Your task to perform on an android device: Go to sound settings Image 0: 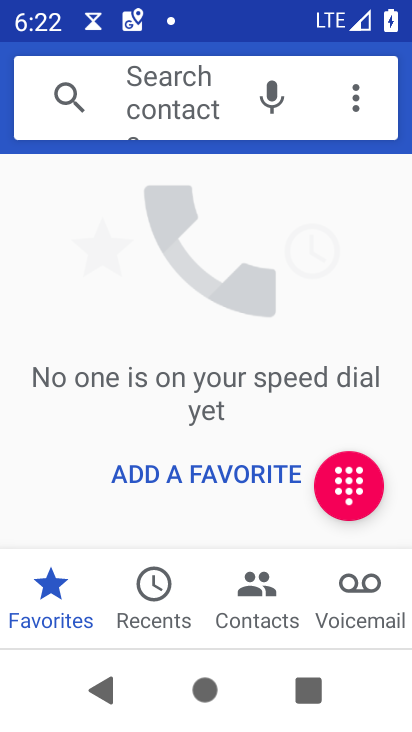
Step 0: press home button
Your task to perform on an android device: Go to sound settings Image 1: 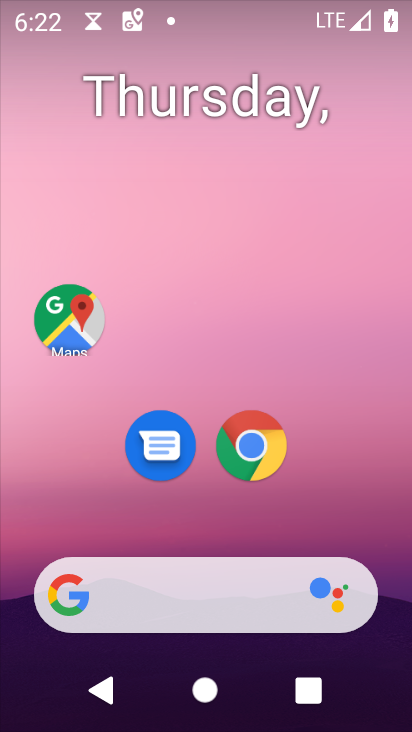
Step 1: drag from (339, 514) to (342, 61)
Your task to perform on an android device: Go to sound settings Image 2: 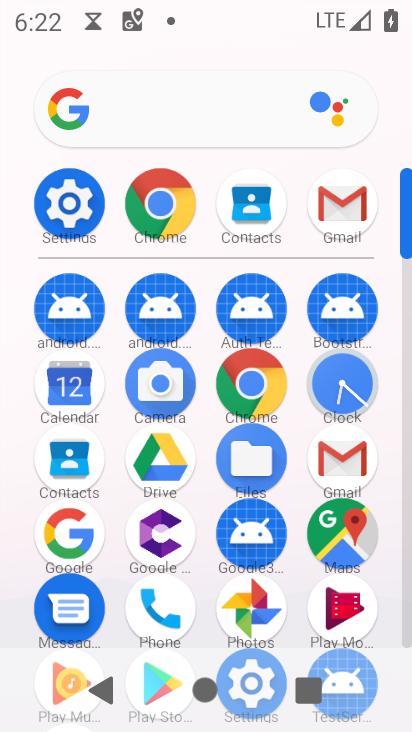
Step 2: click (69, 208)
Your task to perform on an android device: Go to sound settings Image 3: 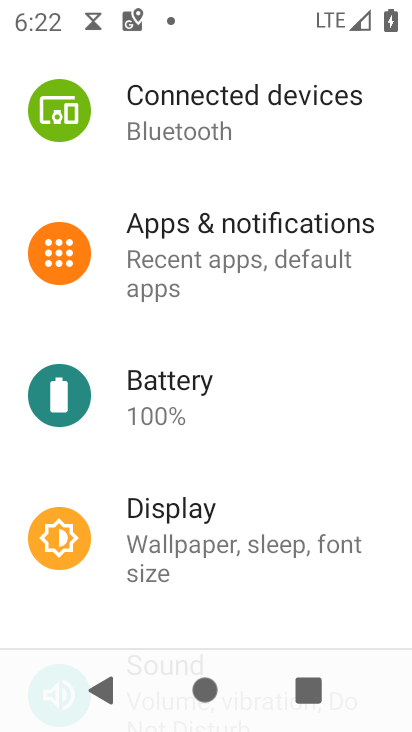
Step 3: drag from (309, 489) to (298, 226)
Your task to perform on an android device: Go to sound settings Image 4: 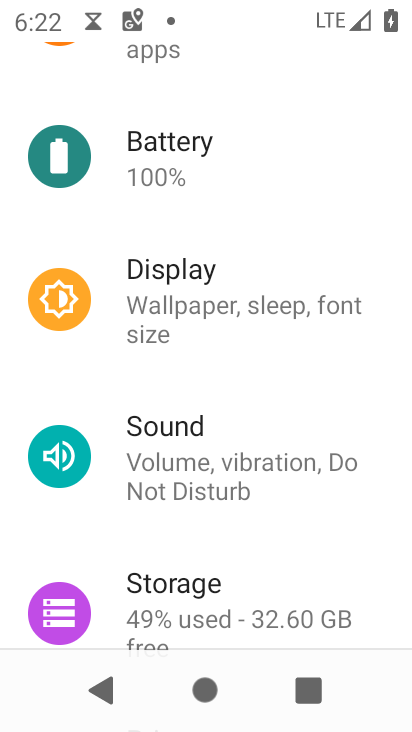
Step 4: click (190, 466)
Your task to perform on an android device: Go to sound settings Image 5: 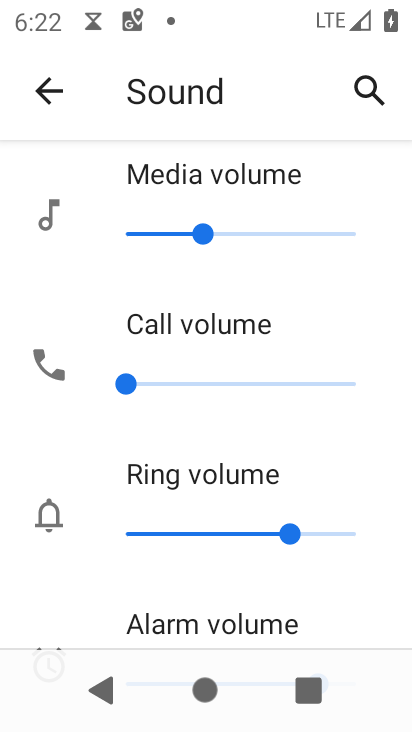
Step 5: task complete